Your task to perform on an android device: turn on the 12-hour format for clock Image 0: 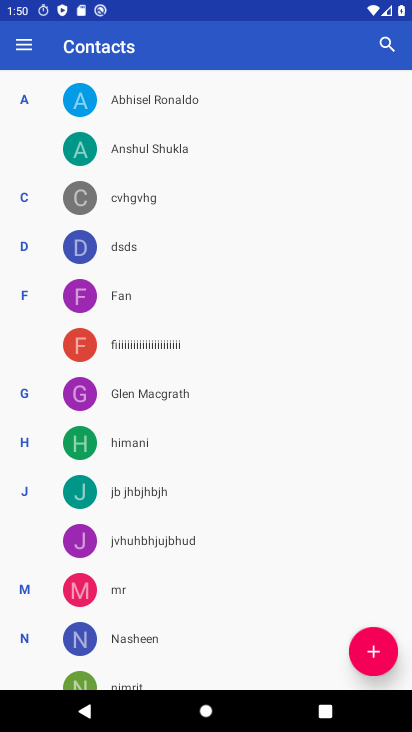
Step 0: press home button
Your task to perform on an android device: turn on the 12-hour format for clock Image 1: 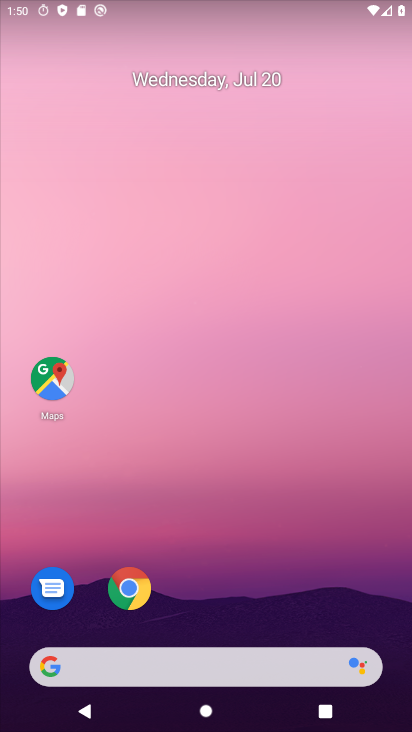
Step 1: drag from (191, 667) to (259, 0)
Your task to perform on an android device: turn on the 12-hour format for clock Image 2: 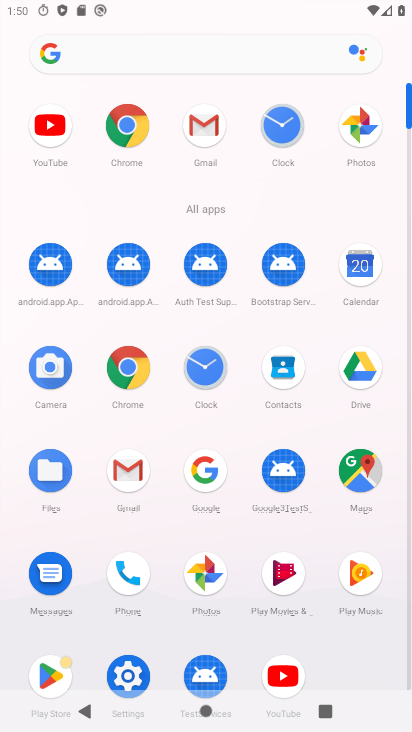
Step 2: click (197, 353)
Your task to perform on an android device: turn on the 12-hour format for clock Image 3: 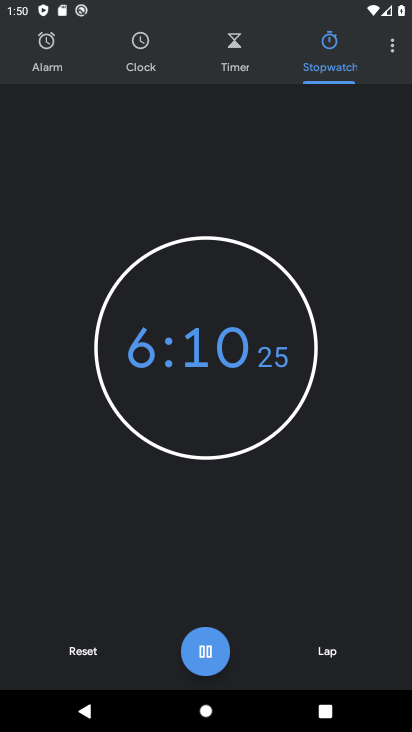
Step 3: click (393, 35)
Your task to perform on an android device: turn on the 12-hour format for clock Image 4: 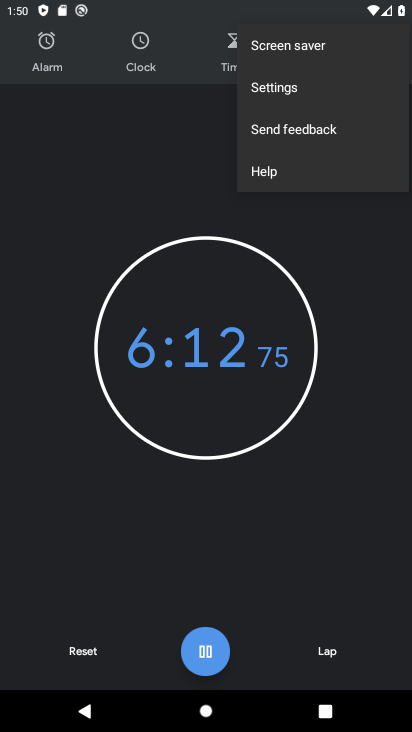
Step 4: click (285, 93)
Your task to perform on an android device: turn on the 12-hour format for clock Image 5: 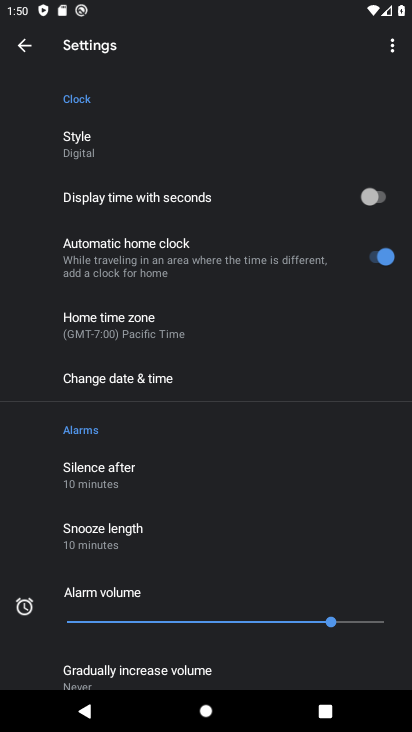
Step 5: click (172, 383)
Your task to perform on an android device: turn on the 12-hour format for clock Image 6: 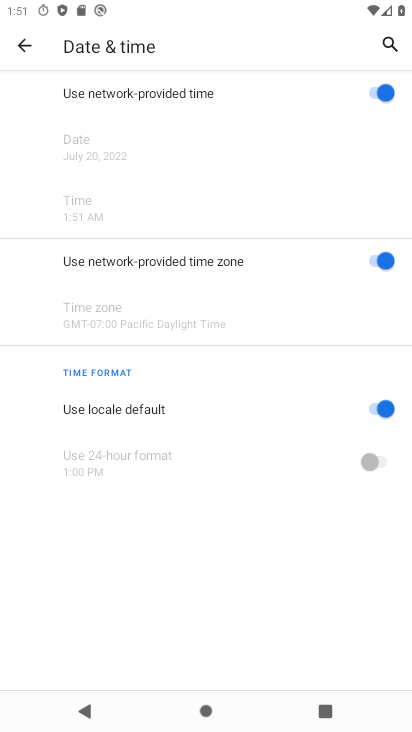
Step 6: click (384, 401)
Your task to perform on an android device: turn on the 12-hour format for clock Image 7: 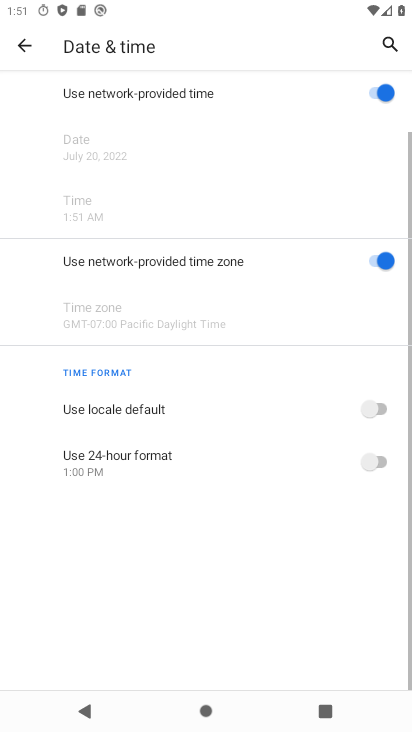
Step 7: task complete